Your task to perform on an android device: turn off picture-in-picture Image 0: 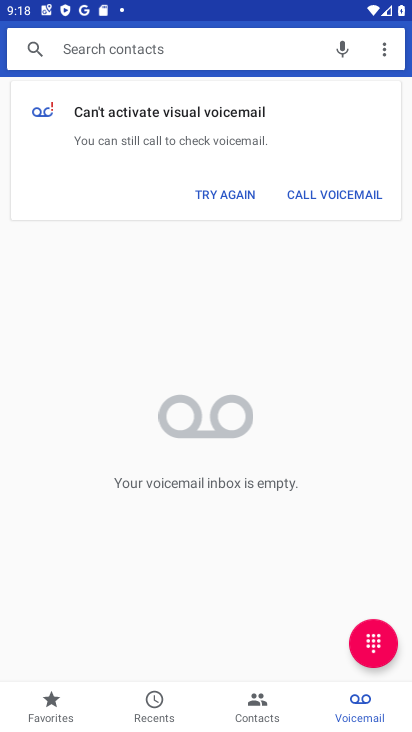
Step 0: press home button
Your task to perform on an android device: turn off picture-in-picture Image 1: 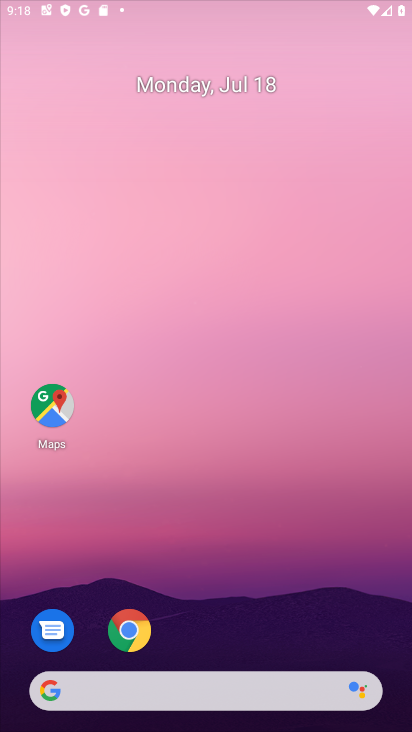
Step 1: drag from (380, 657) to (263, 4)
Your task to perform on an android device: turn off picture-in-picture Image 2: 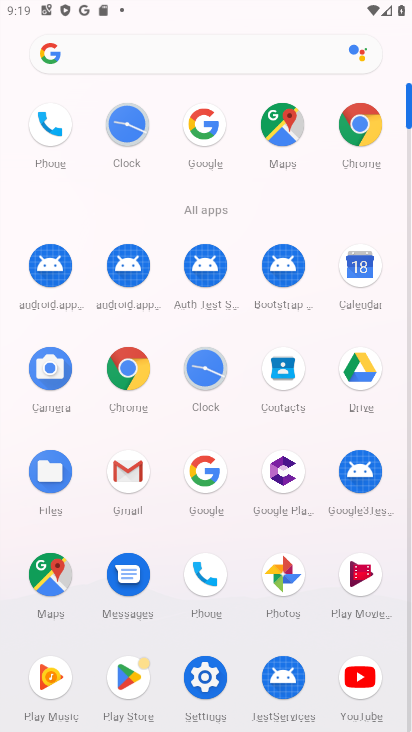
Step 2: click (361, 120)
Your task to perform on an android device: turn off picture-in-picture Image 3: 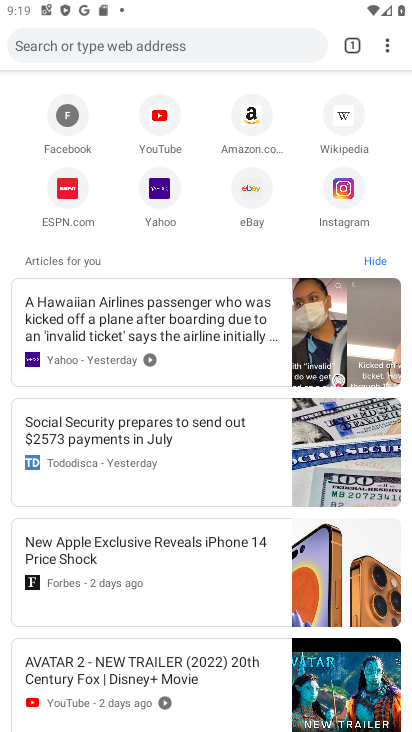
Step 3: task complete